Your task to perform on an android device: Open Maps and search for coffee Image 0: 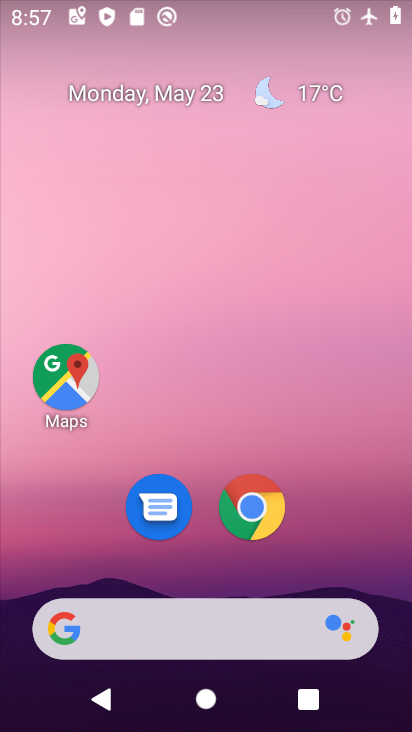
Step 0: click (64, 376)
Your task to perform on an android device: Open Maps and search for coffee Image 1: 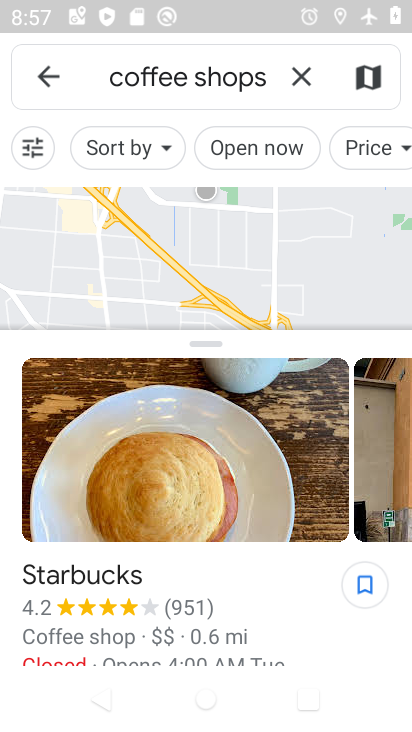
Step 1: task complete